Your task to perform on an android device: Open Google Image 0: 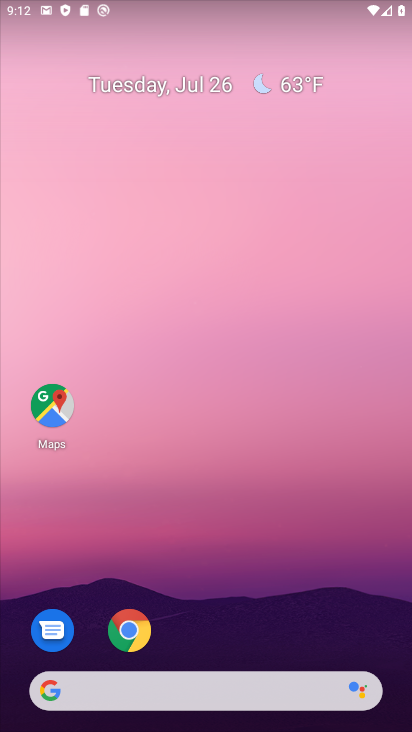
Step 0: drag from (214, 648) to (270, 49)
Your task to perform on an android device: Open Google Image 1: 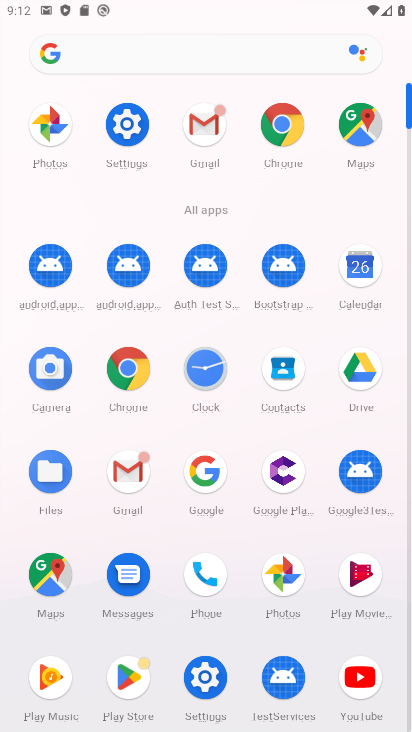
Step 1: click (201, 466)
Your task to perform on an android device: Open Google Image 2: 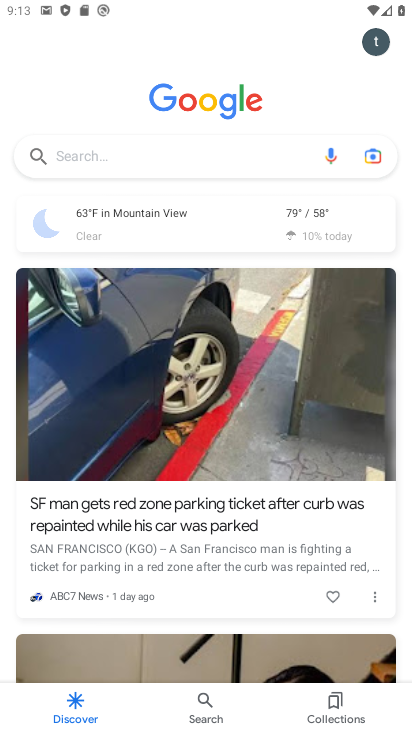
Step 2: click (202, 704)
Your task to perform on an android device: Open Google Image 3: 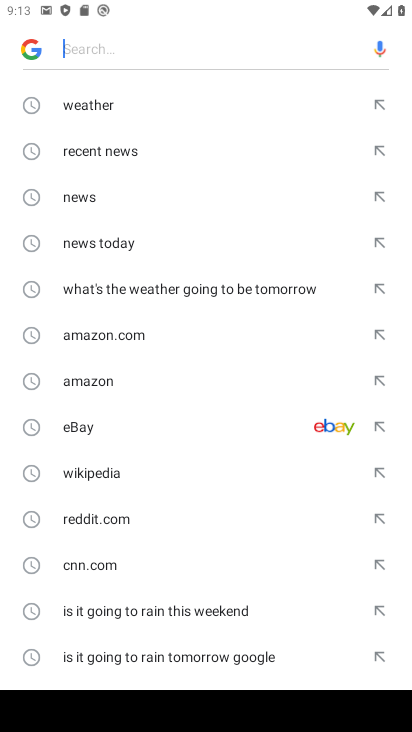
Step 3: press back button
Your task to perform on an android device: Open Google Image 4: 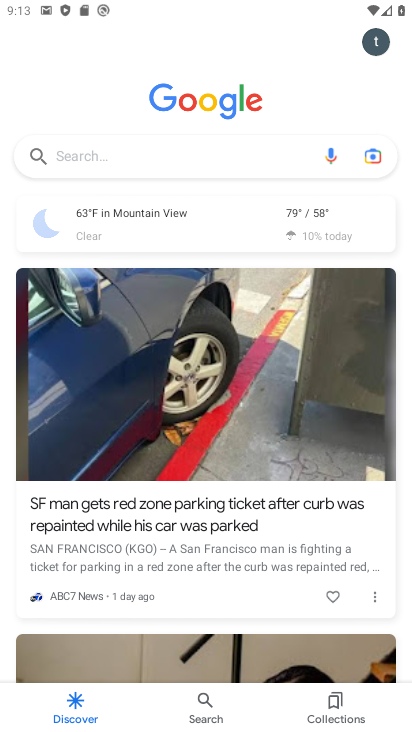
Step 4: click (304, 705)
Your task to perform on an android device: Open Google Image 5: 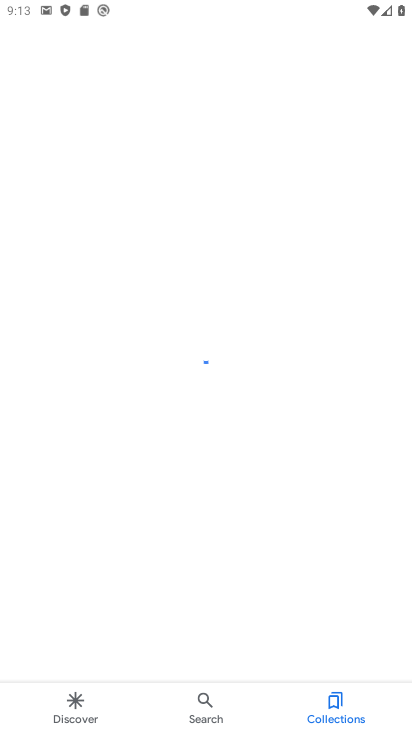
Step 5: task complete